Your task to perform on an android device: open a bookmark in the chrome app Image 0: 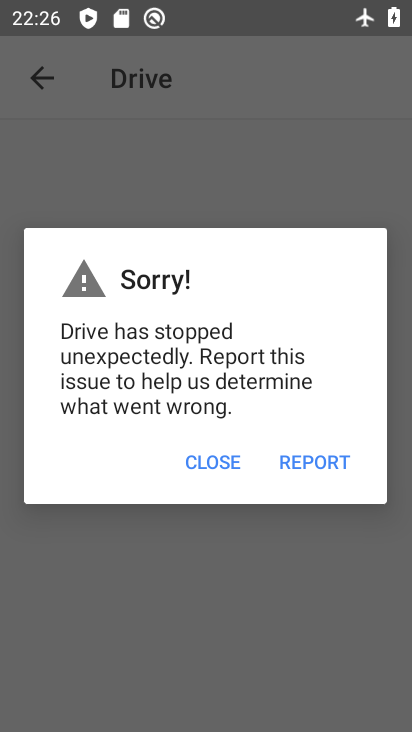
Step 0: press home button
Your task to perform on an android device: open a bookmark in the chrome app Image 1: 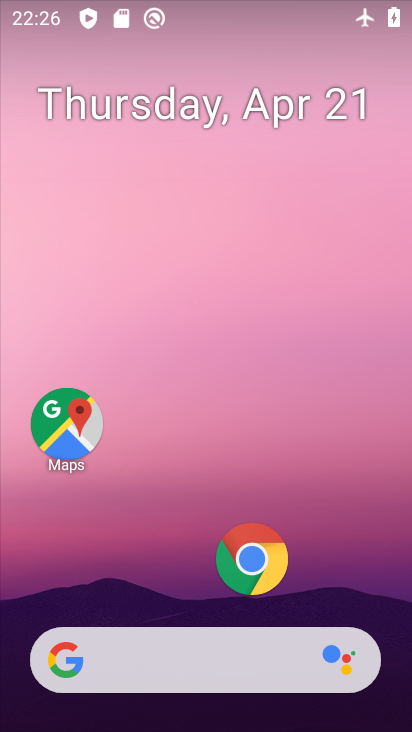
Step 1: click (258, 557)
Your task to perform on an android device: open a bookmark in the chrome app Image 2: 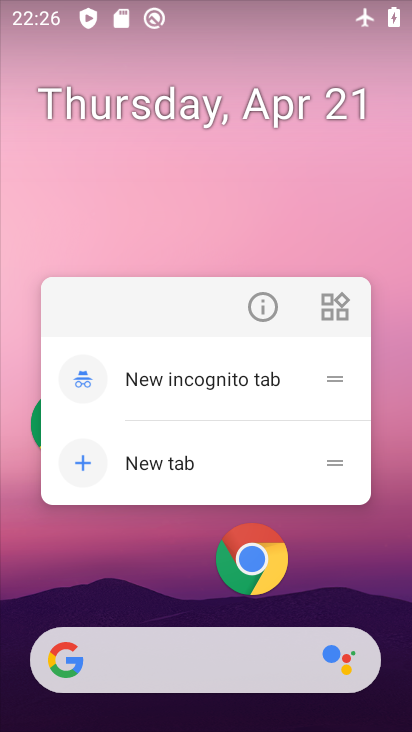
Step 2: click (252, 312)
Your task to perform on an android device: open a bookmark in the chrome app Image 3: 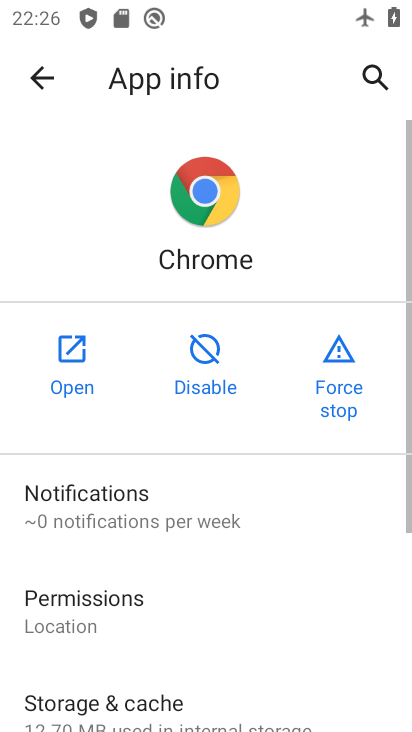
Step 3: click (76, 370)
Your task to perform on an android device: open a bookmark in the chrome app Image 4: 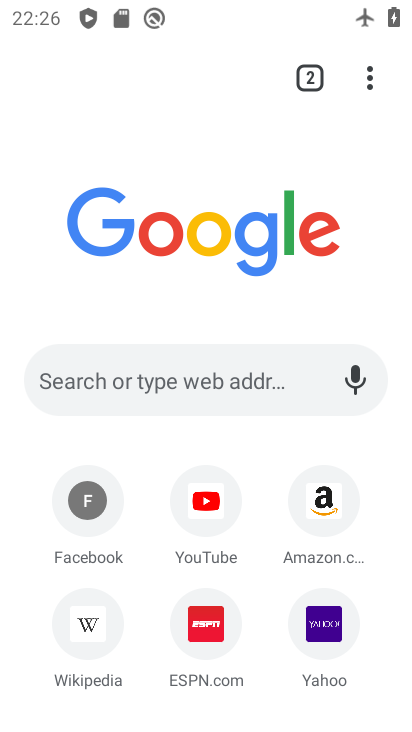
Step 4: click (368, 87)
Your task to perform on an android device: open a bookmark in the chrome app Image 5: 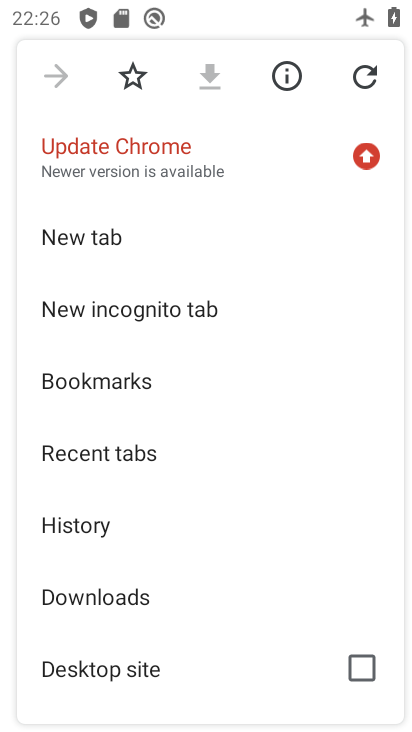
Step 5: click (123, 389)
Your task to perform on an android device: open a bookmark in the chrome app Image 6: 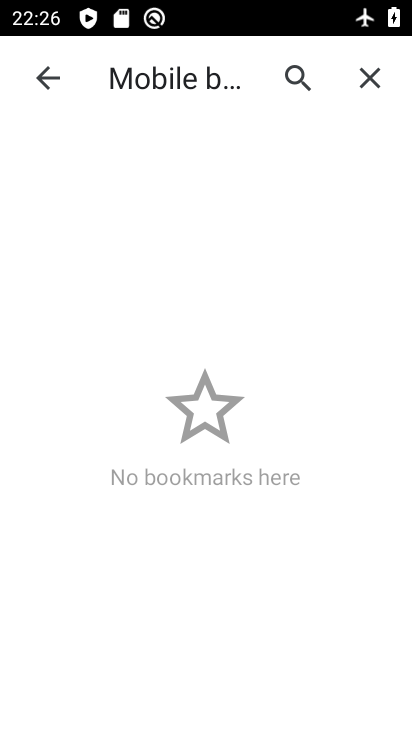
Step 6: task complete